Your task to perform on an android device: Open Youtube and go to "Your channel" Image 0: 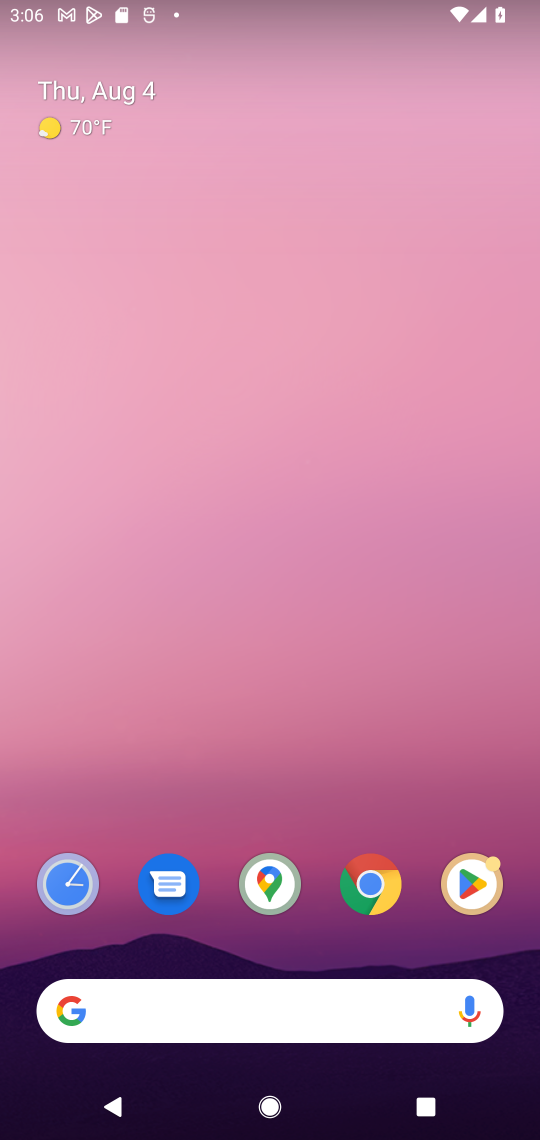
Step 0: drag from (303, 964) to (305, 254)
Your task to perform on an android device: Open Youtube and go to "Your channel" Image 1: 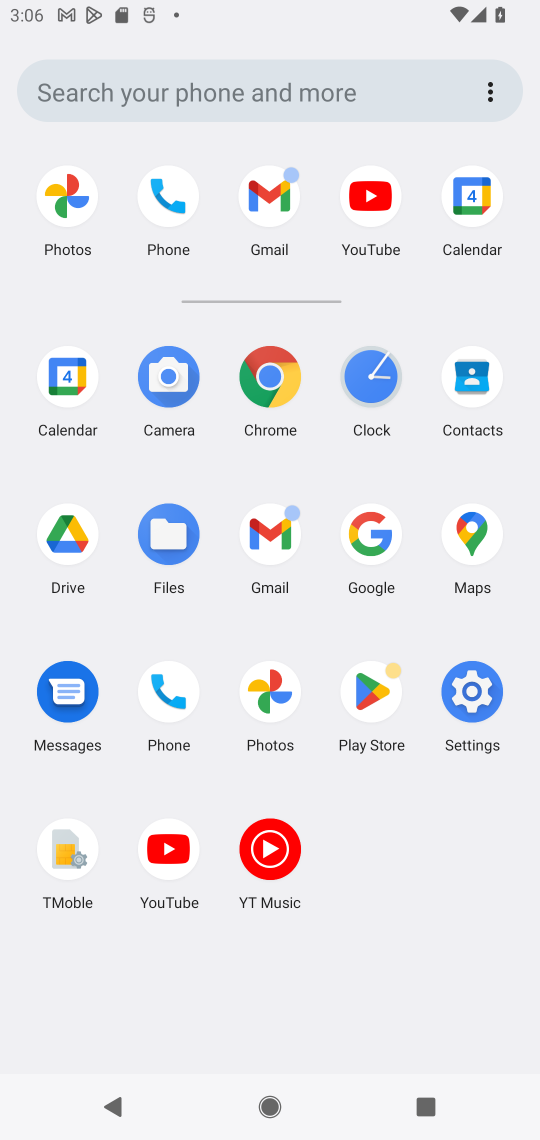
Step 1: click (371, 240)
Your task to perform on an android device: Open Youtube and go to "Your channel" Image 2: 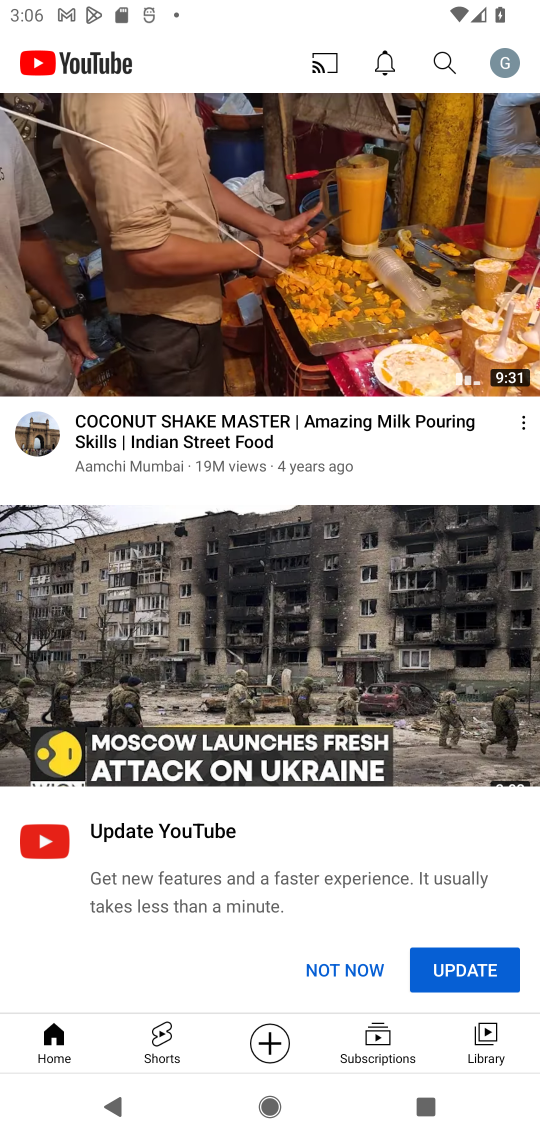
Step 2: click (474, 967)
Your task to perform on an android device: Open Youtube and go to "Your channel" Image 3: 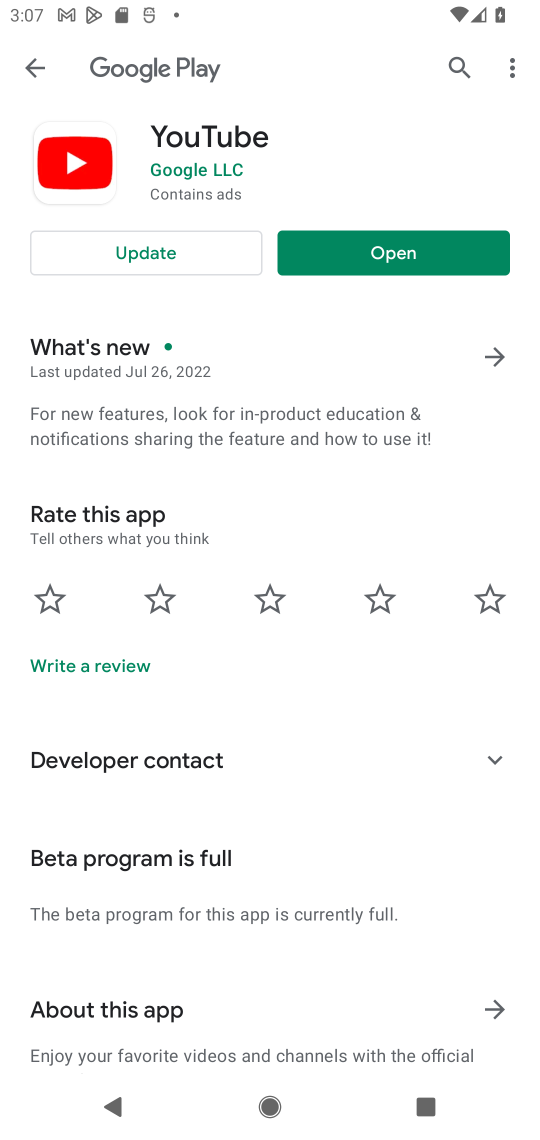
Step 3: click (394, 246)
Your task to perform on an android device: Open Youtube and go to "Your channel" Image 4: 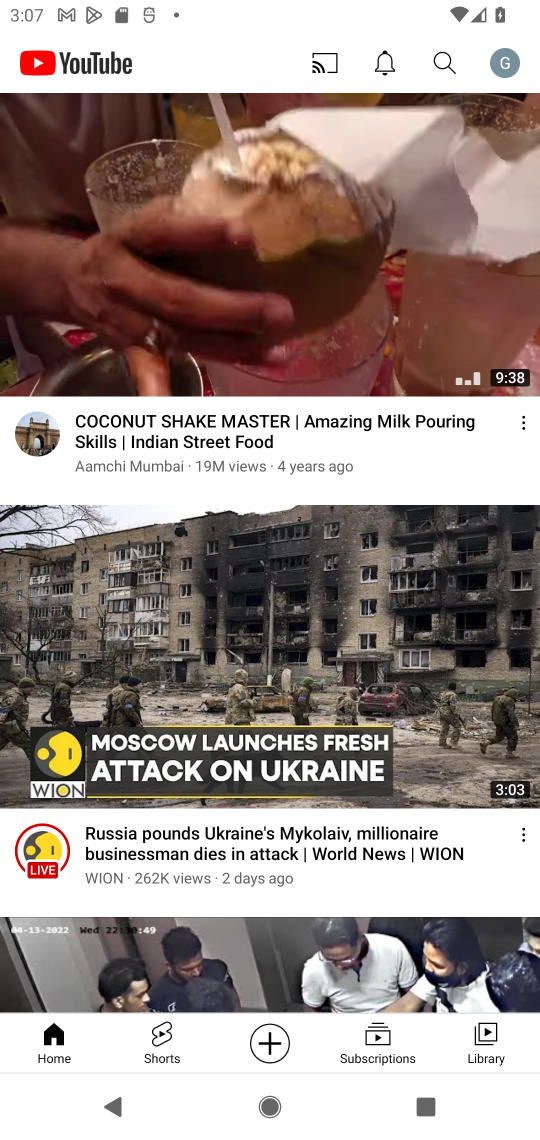
Step 4: click (505, 78)
Your task to perform on an android device: Open Youtube and go to "Your channel" Image 5: 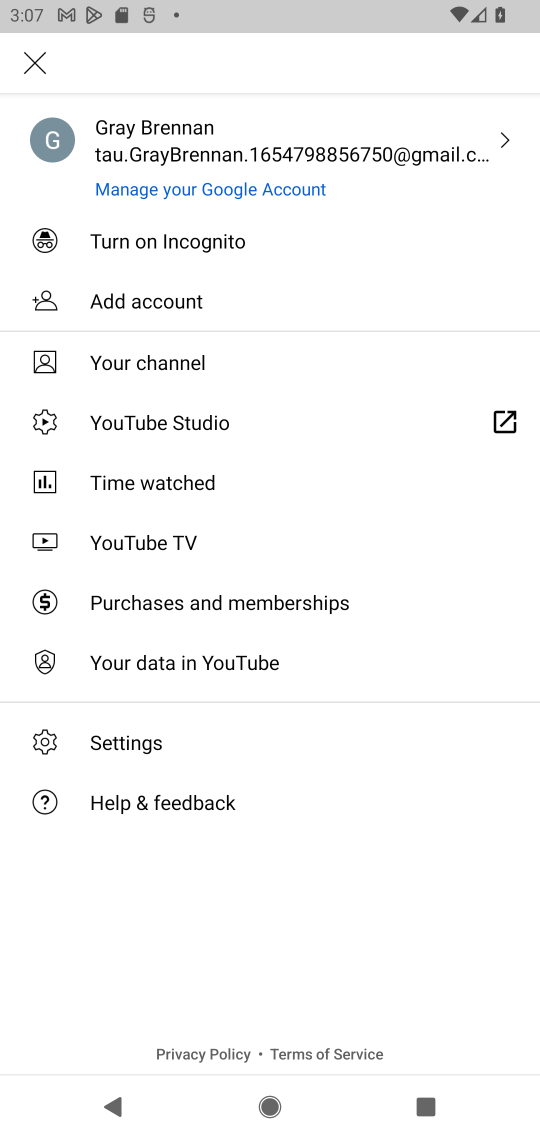
Step 5: click (262, 372)
Your task to perform on an android device: Open Youtube and go to "Your channel" Image 6: 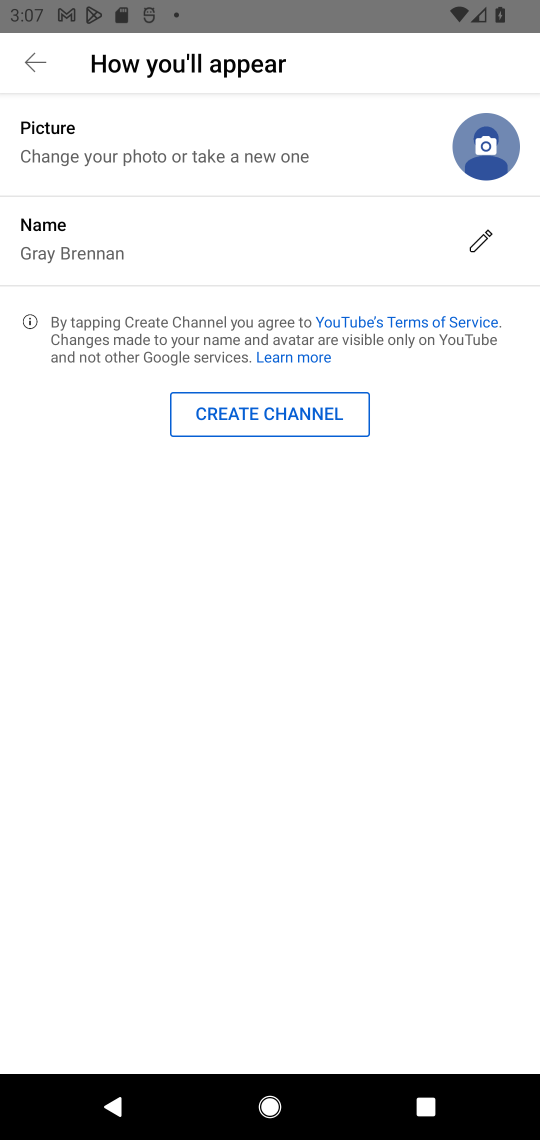
Step 6: task complete